Your task to perform on an android device: Open Reddit.com Image 0: 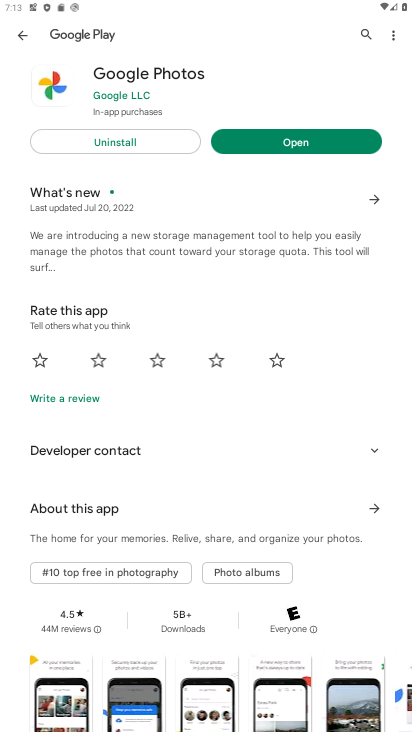
Step 0: press home button
Your task to perform on an android device: Open Reddit.com Image 1: 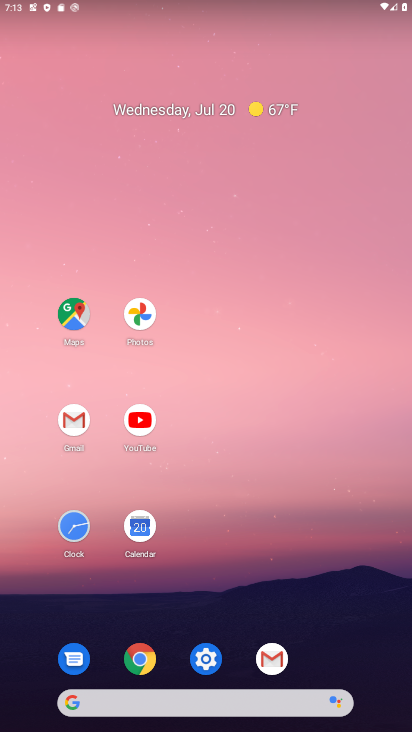
Step 1: click (140, 653)
Your task to perform on an android device: Open Reddit.com Image 2: 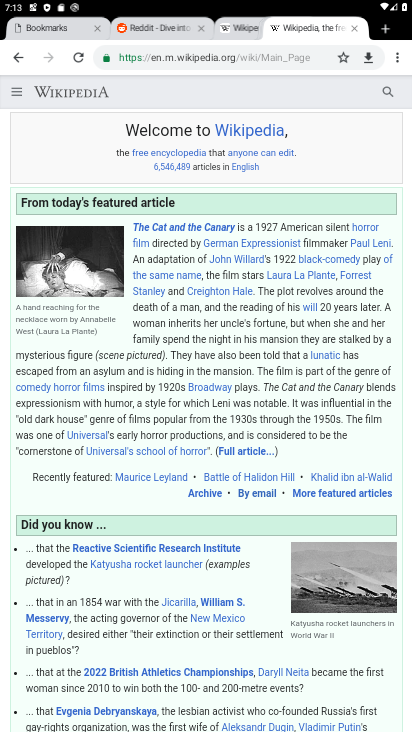
Step 2: click (399, 60)
Your task to perform on an android device: Open Reddit.com Image 3: 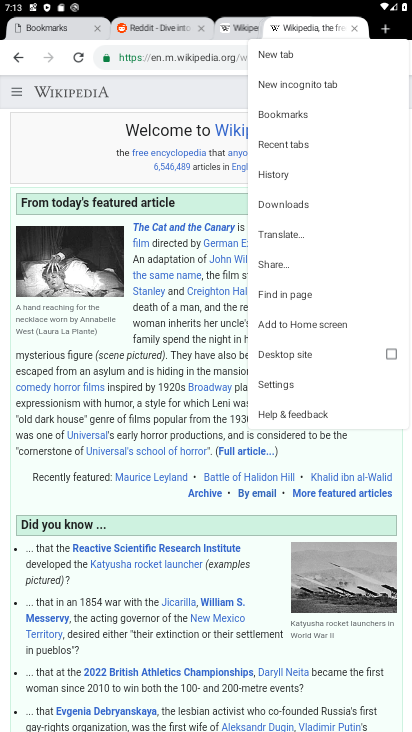
Step 3: click (292, 55)
Your task to perform on an android device: Open Reddit.com Image 4: 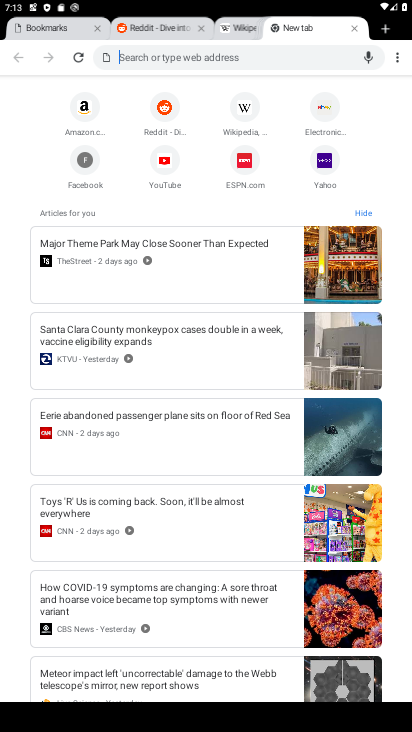
Step 4: click (168, 110)
Your task to perform on an android device: Open Reddit.com Image 5: 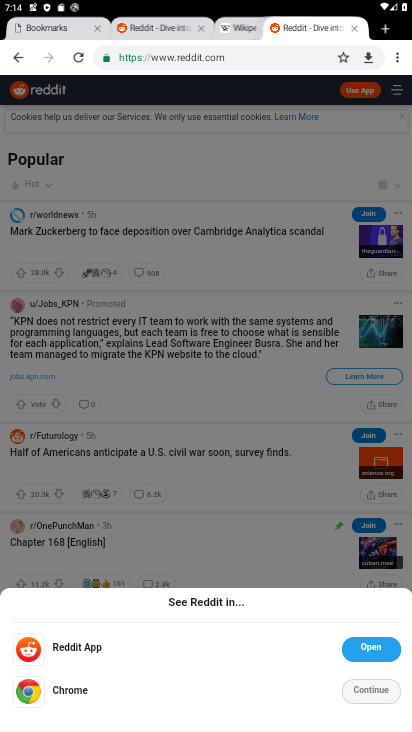
Step 5: task complete